Your task to perform on an android device: Open Google Chrome and open the bookmarks view Image 0: 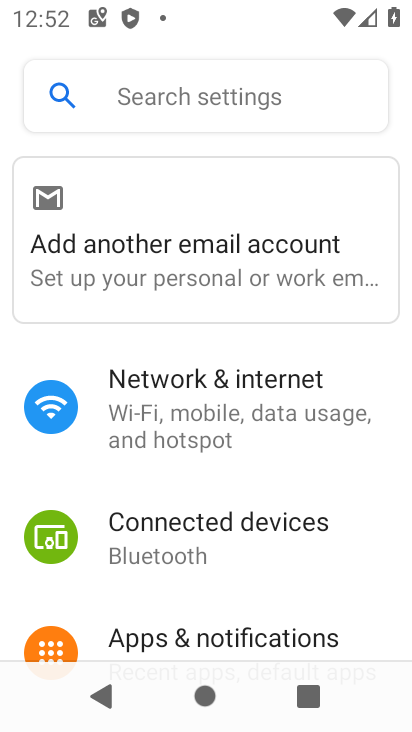
Step 0: press back button
Your task to perform on an android device: Open Google Chrome and open the bookmarks view Image 1: 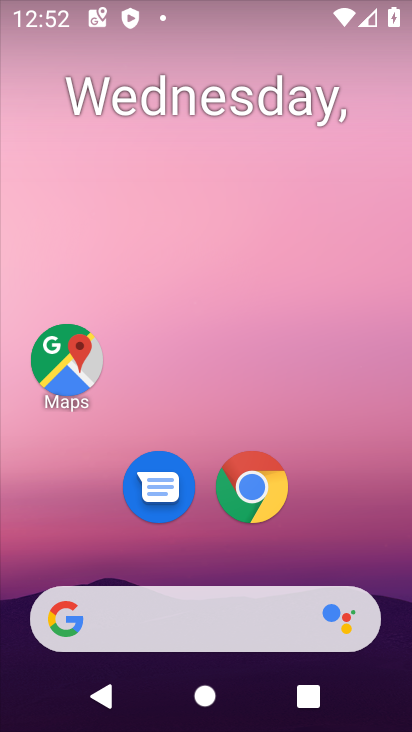
Step 1: click (257, 484)
Your task to perform on an android device: Open Google Chrome and open the bookmarks view Image 2: 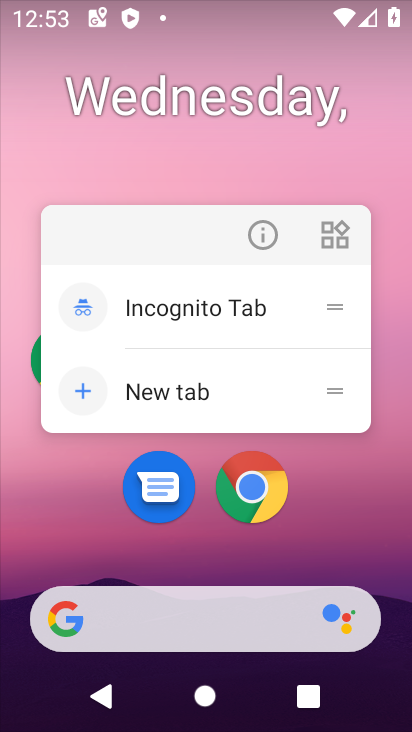
Step 2: click (255, 487)
Your task to perform on an android device: Open Google Chrome and open the bookmarks view Image 3: 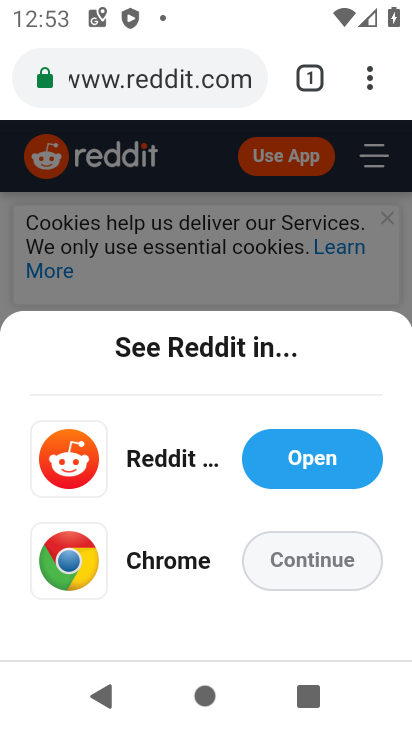
Step 3: task complete